Your task to perform on an android device: open app "Google Docs" Image 0: 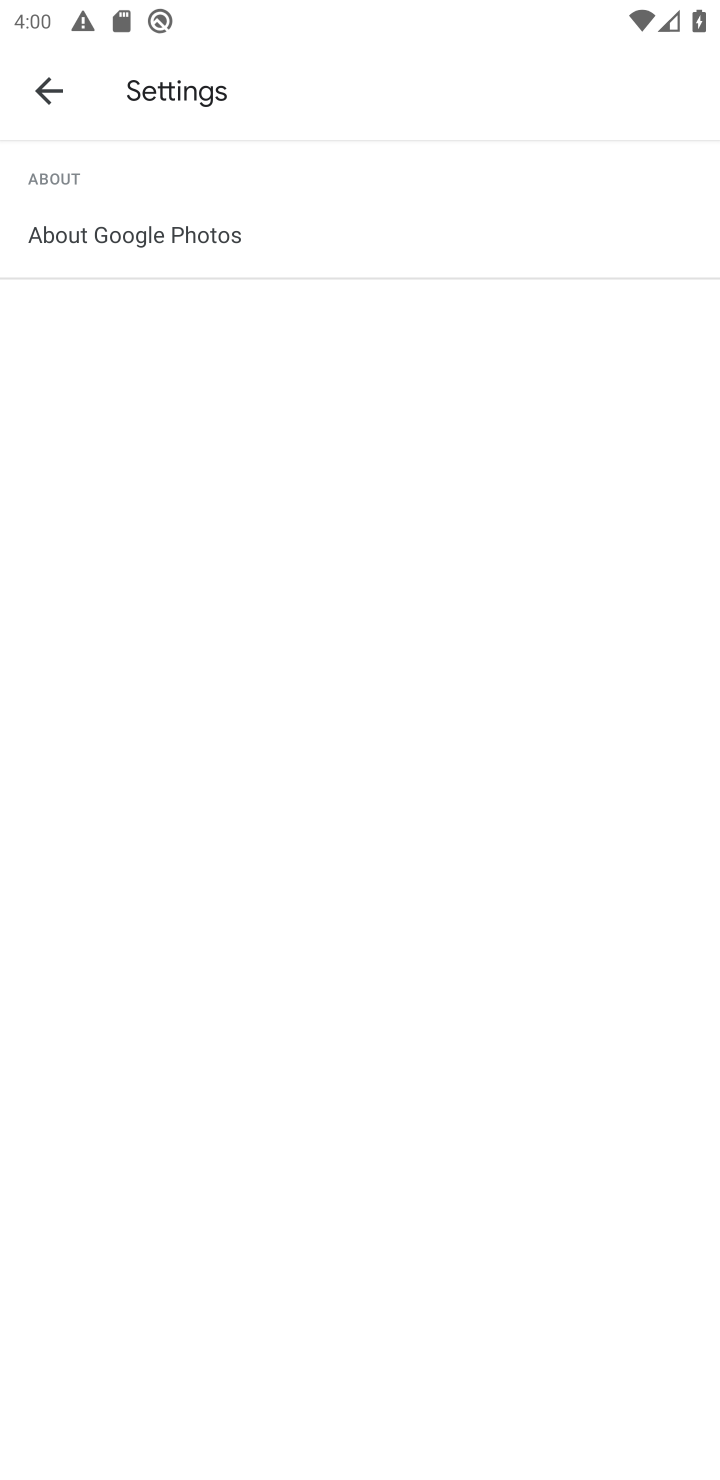
Step 0: press home button
Your task to perform on an android device: open app "Google Docs" Image 1: 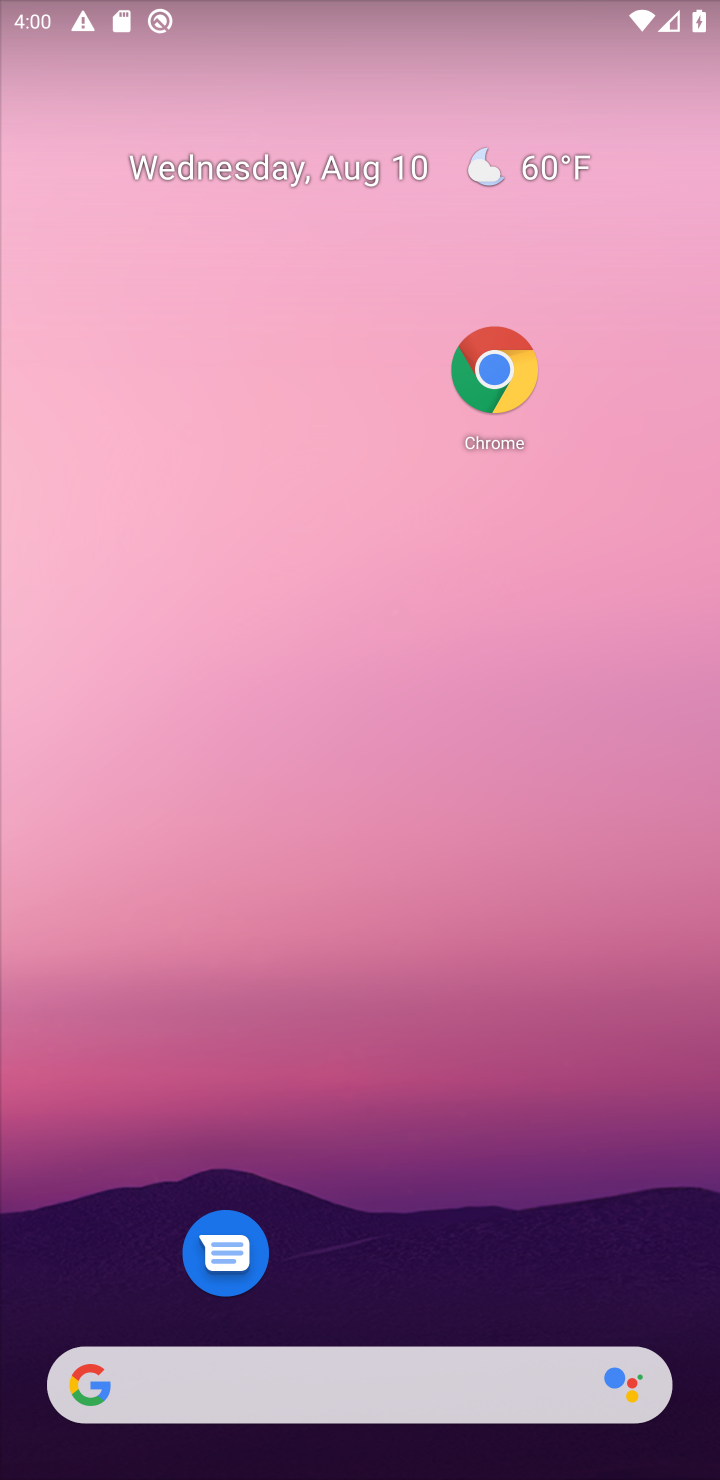
Step 1: drag from (452, 1279) to (331, 228)
Your task to perform on an android device: open app "Google Docs" Image 2: 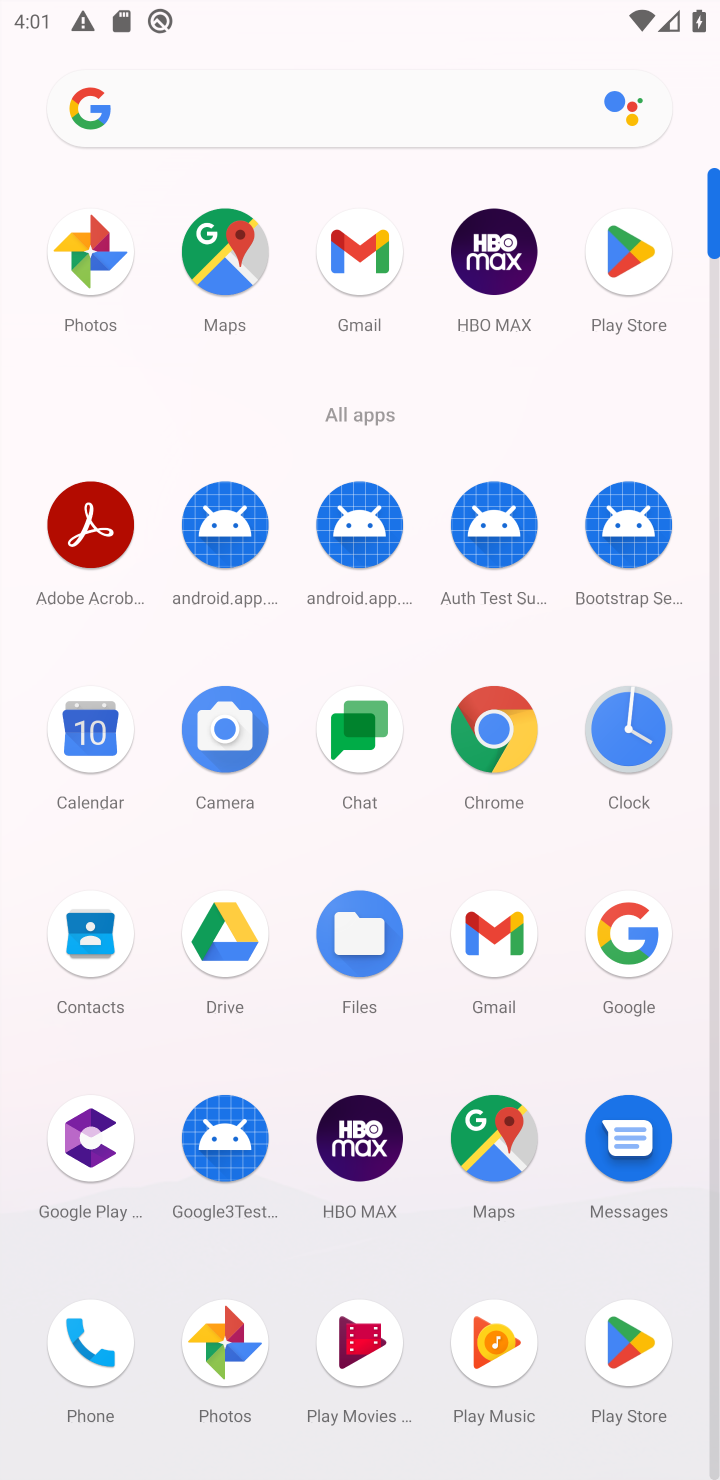
Step 2: click (614, 243)
Your task to perform on an android device: open app "Google Docs" Image 3: 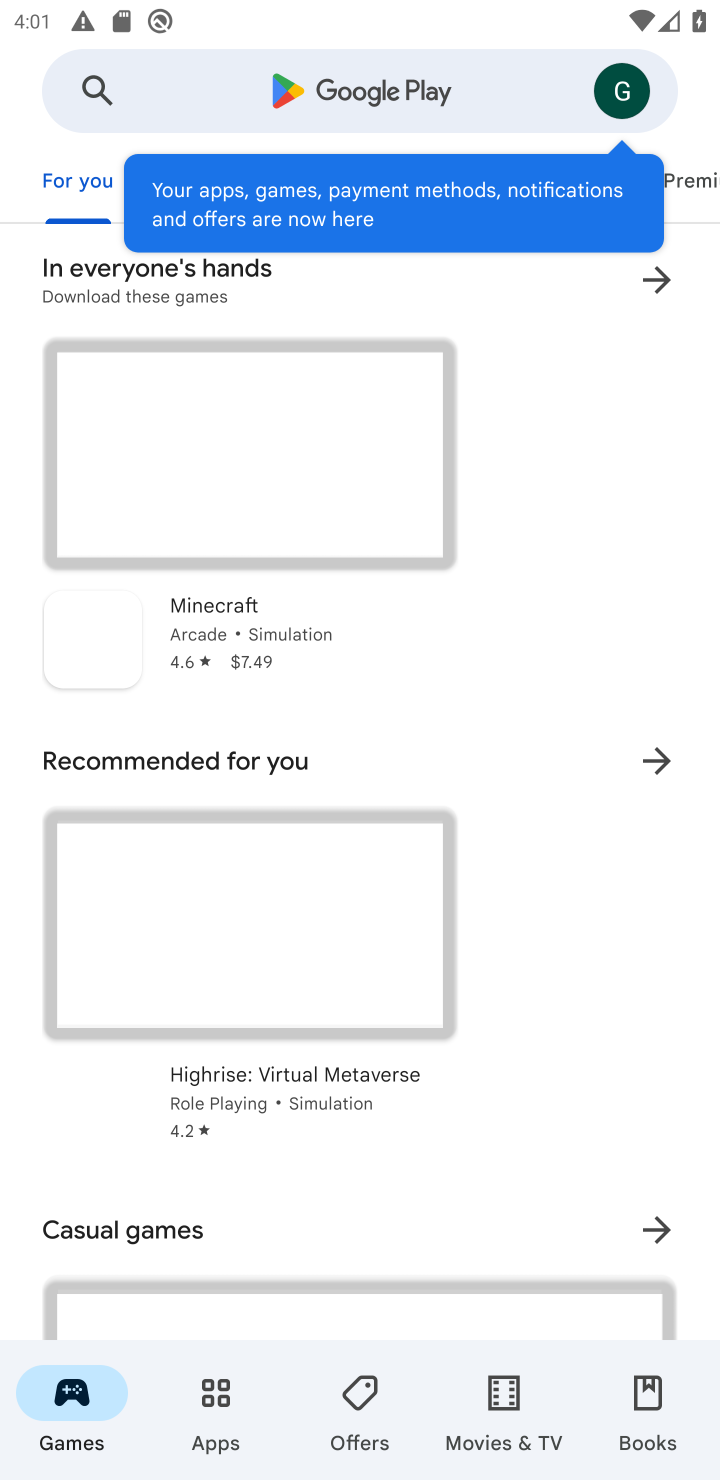
Step 3: click (367, 65)
Your task to perform on an android device: open app "Google Docs" Image 4: 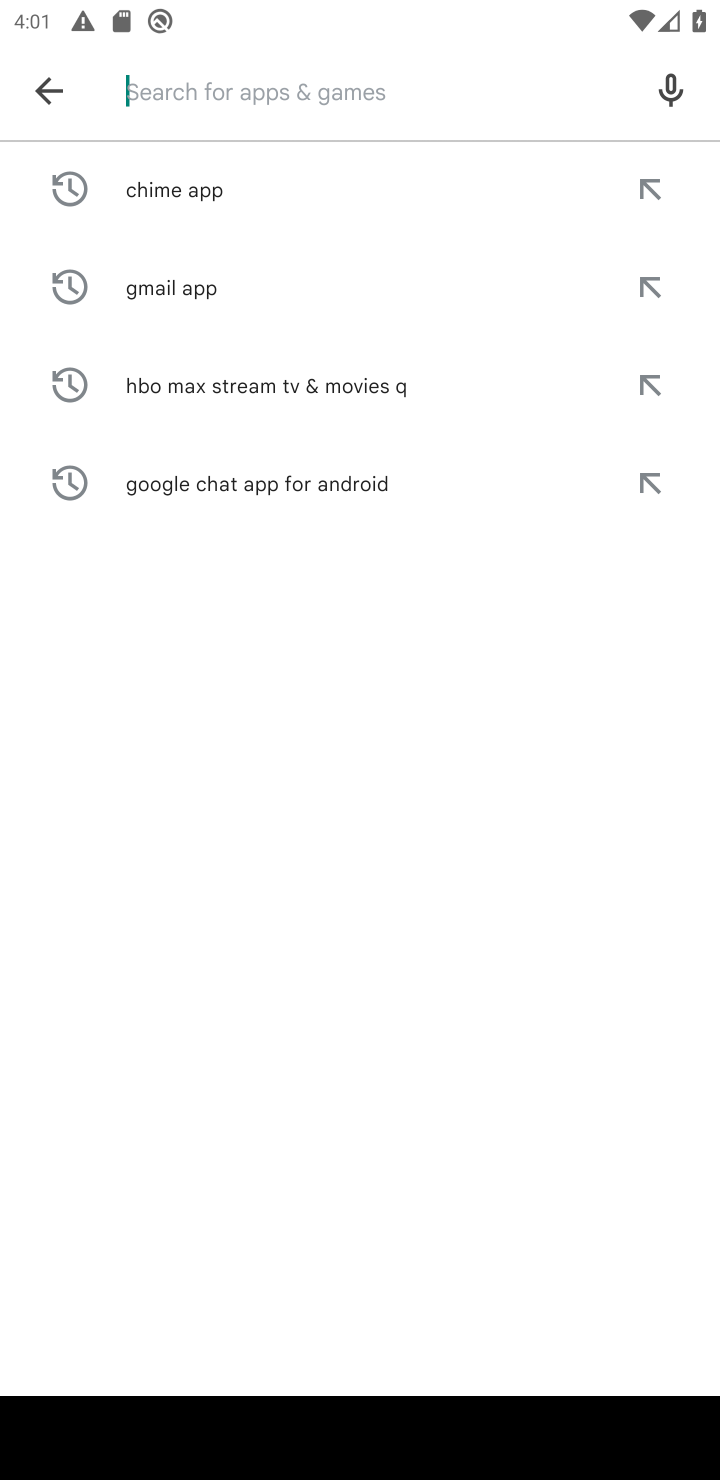
Step 4: click (306, 73)
Your task to perform on an android device: open app "Google Docs" Image 5: 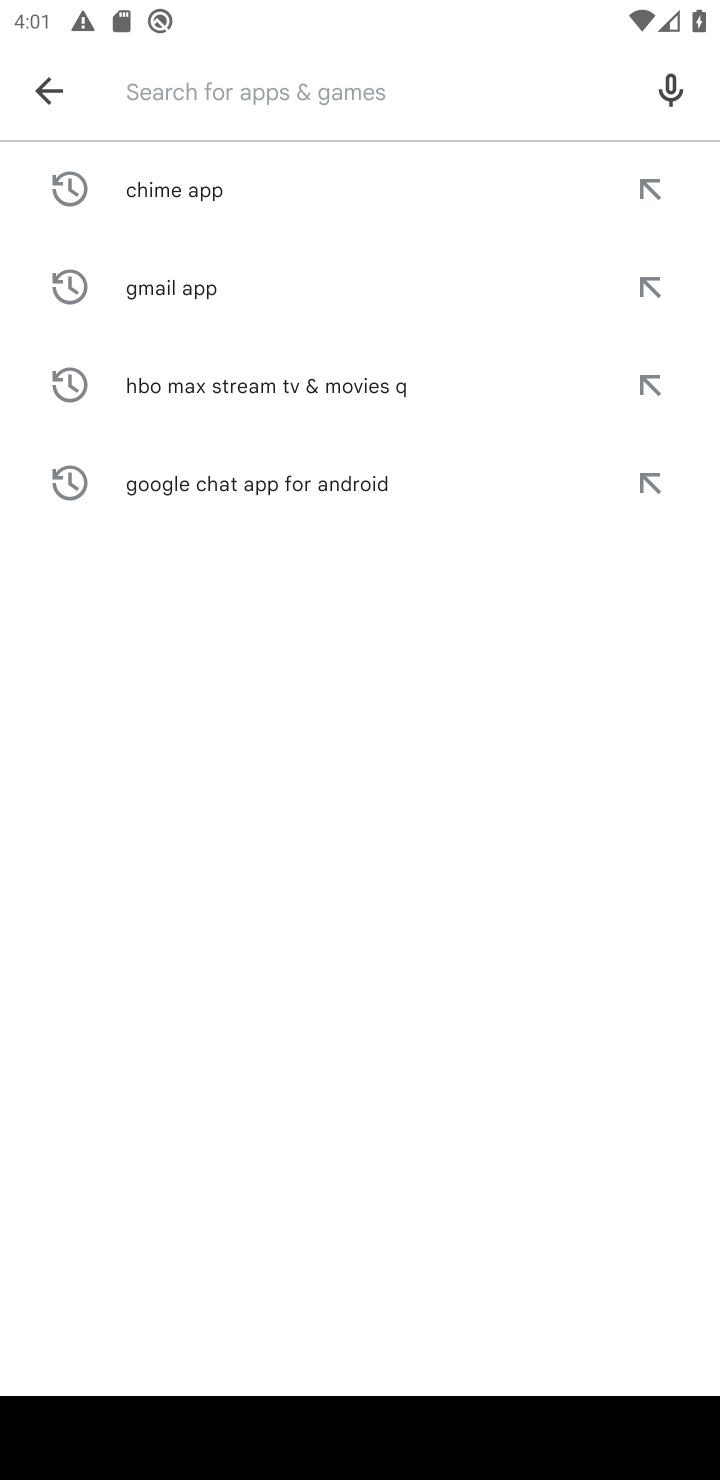
Step 5: type ""Google Docs "
Your task to perform on an android device: open app "Google Docs" Image 6: 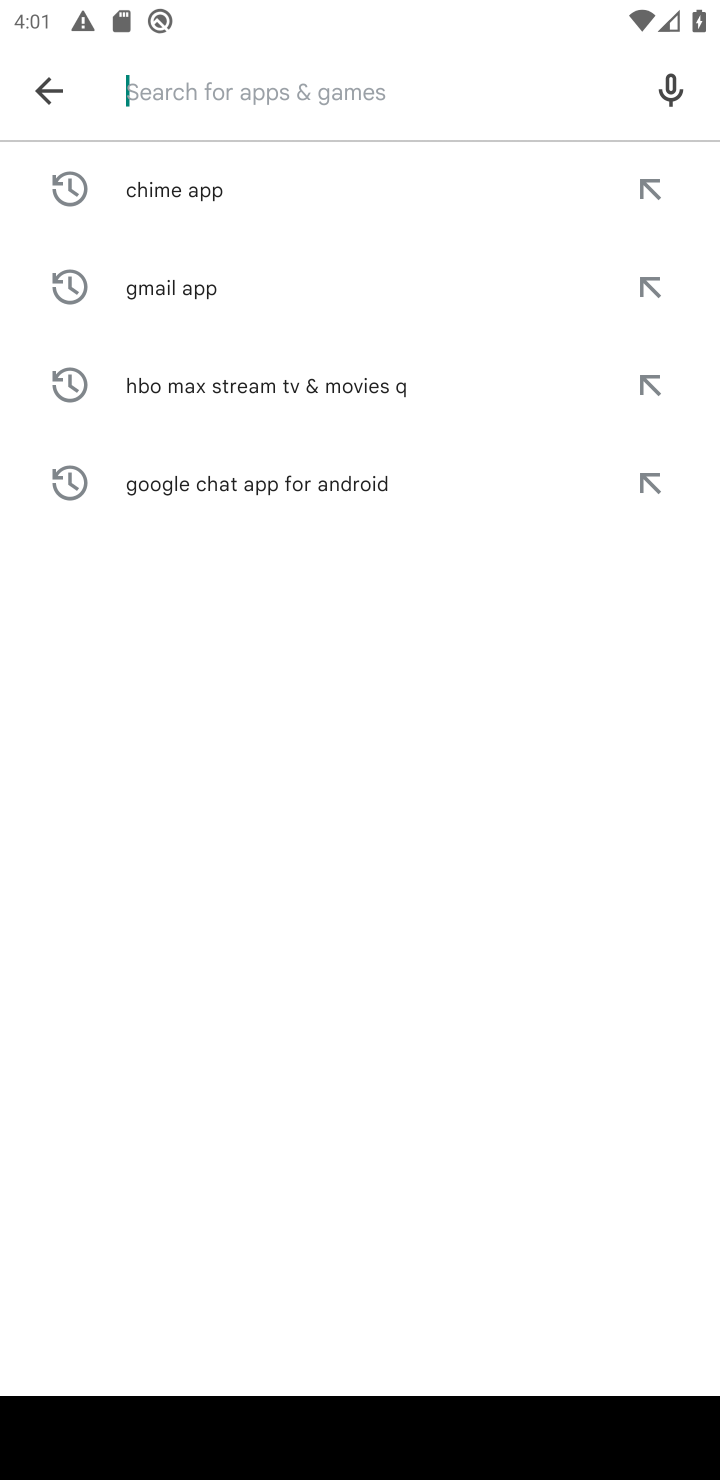
Step 6: click (234, 75)
Your task to perform on an android device: open app "Google Docs" Image 7: 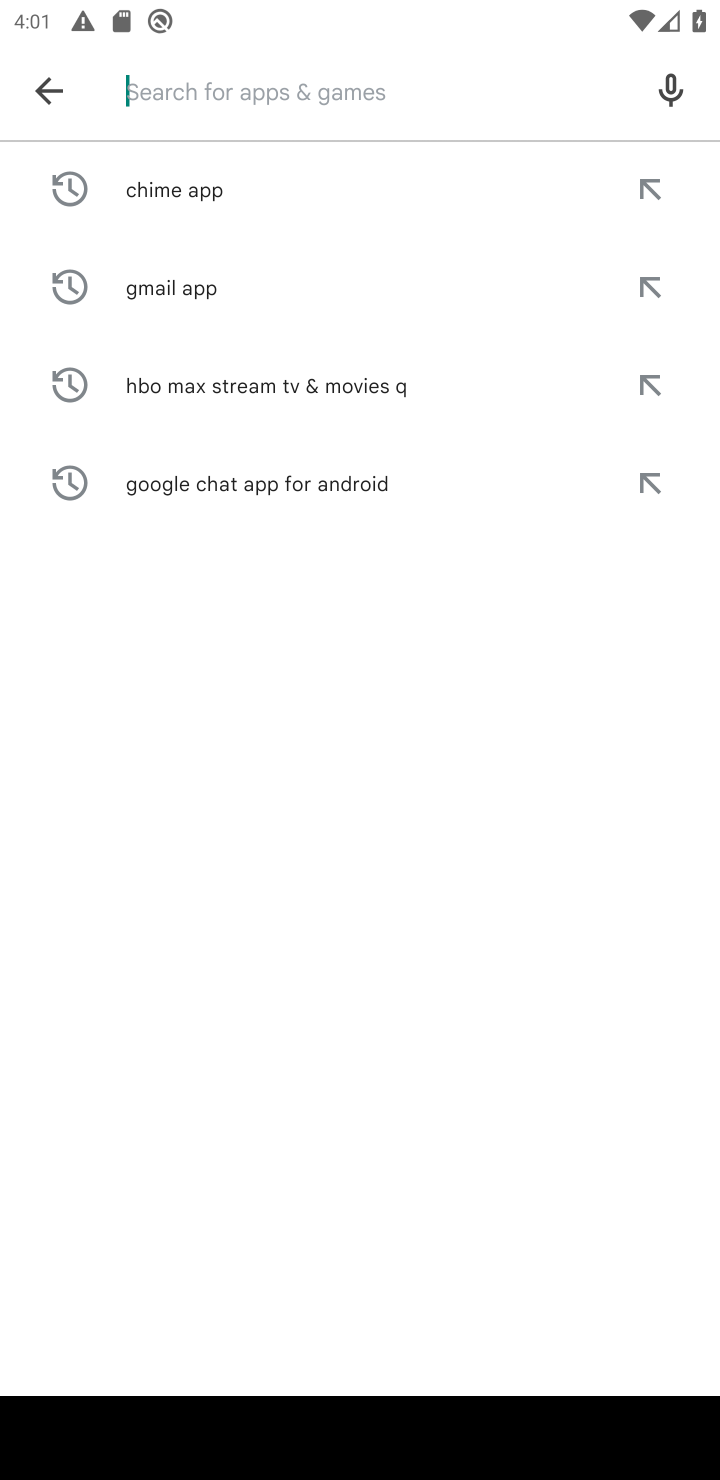
Step 7: type "google docs "
Your task to perform on an android device: open app "Google Docs" Image 8: 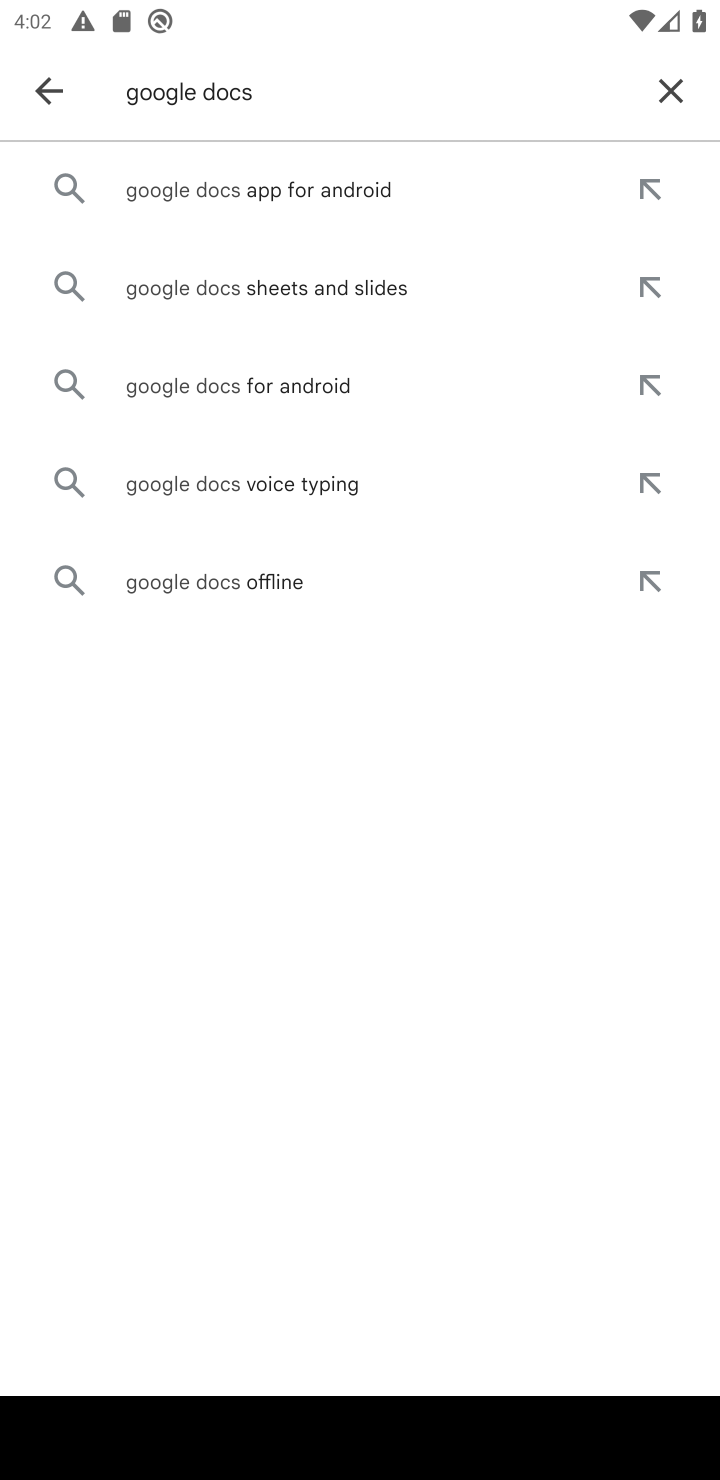
Step 8: click (367, 206)
Your task to perform on an android device: open app "Google Docs" Image 9: 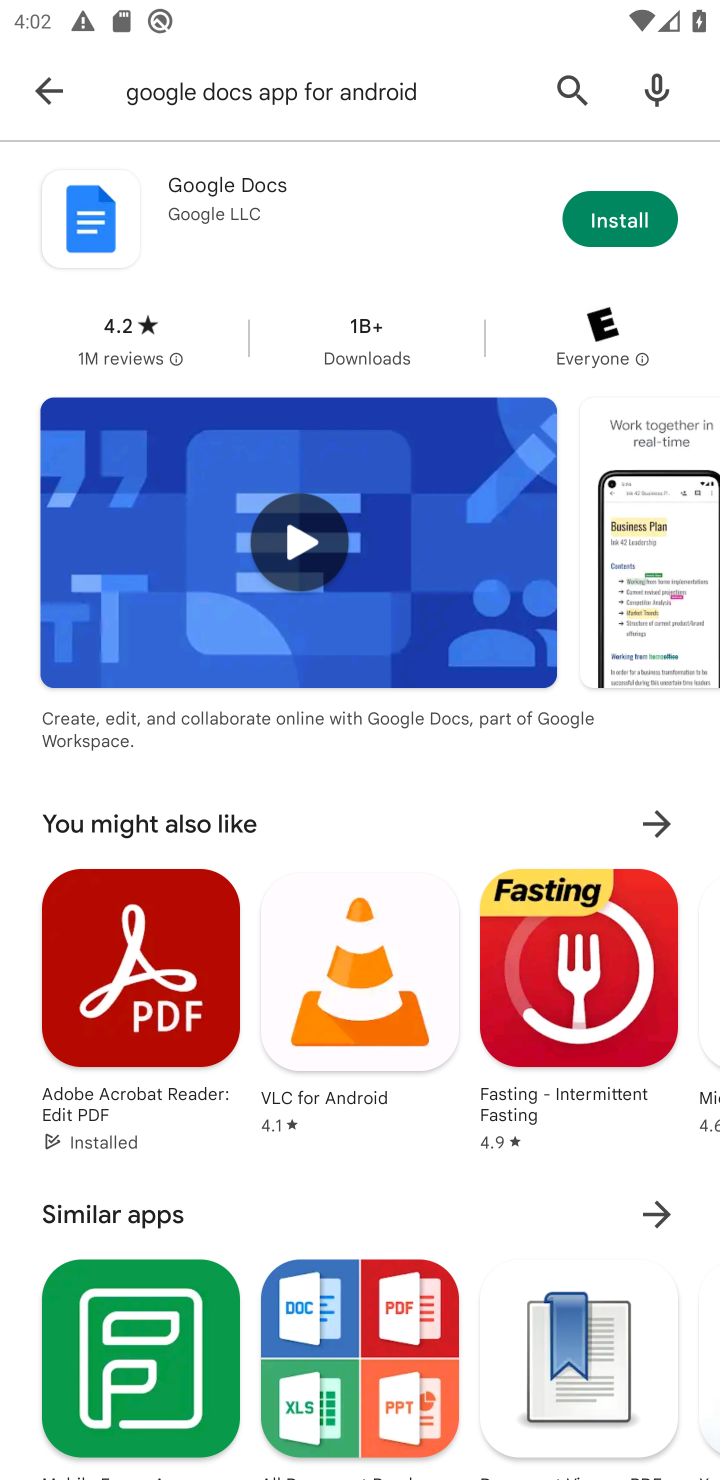
Step 9: click (622, 214)
Your task to perform on an android device: open app "Google Docs" Image 10: 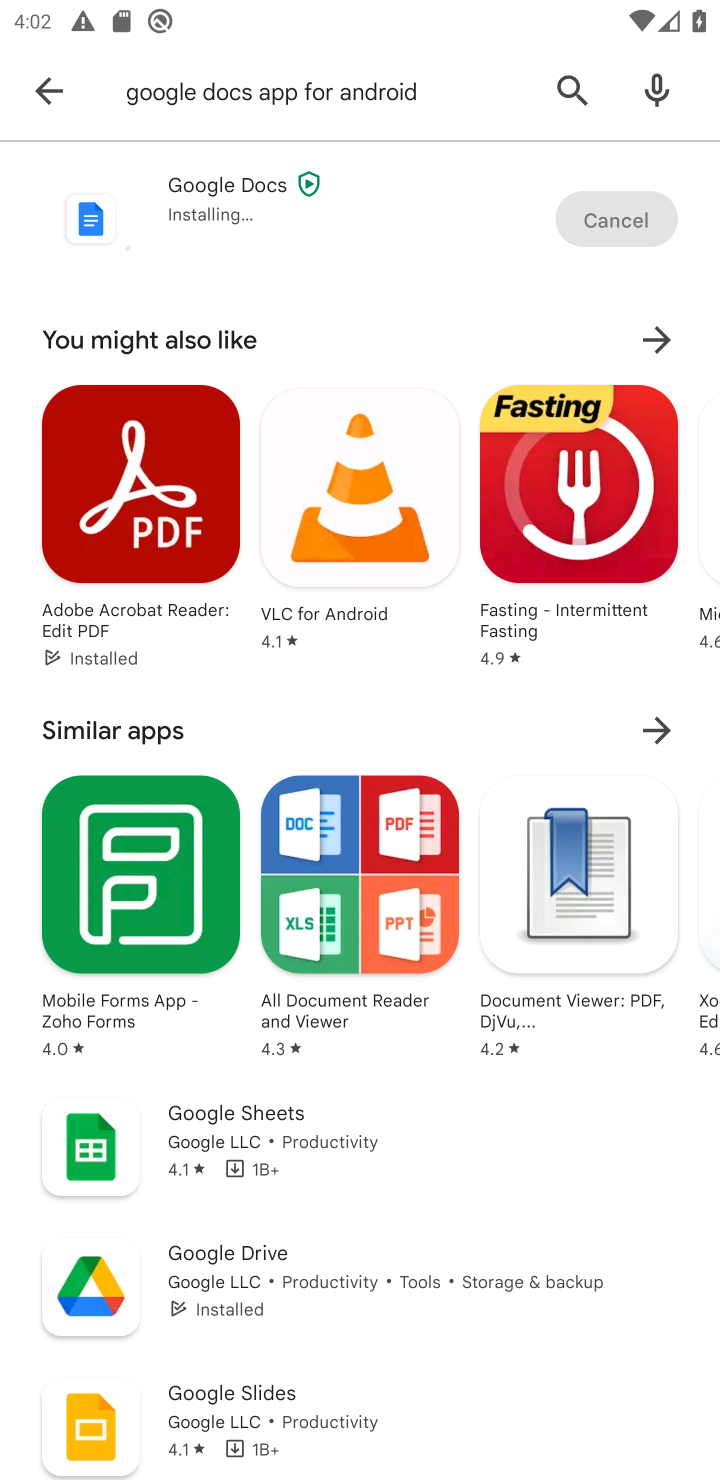
Step 10: task complete